Your task to perform on an android device: turn smart compose on in the gmail app Image 0: 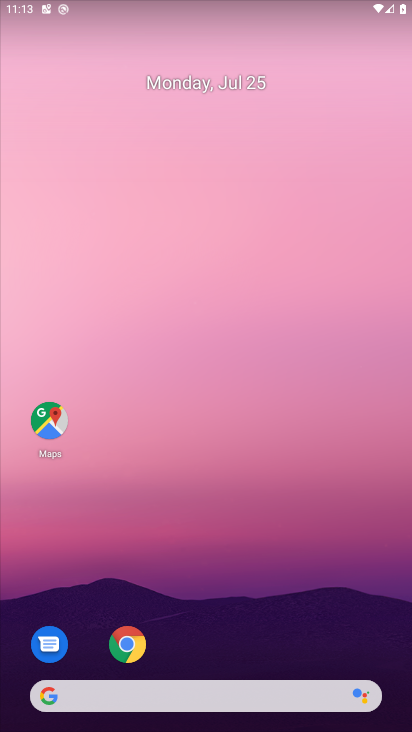
Step 0: press home button
Your task to perform on an android device: turn smart compose on in the gmail app Image 1: 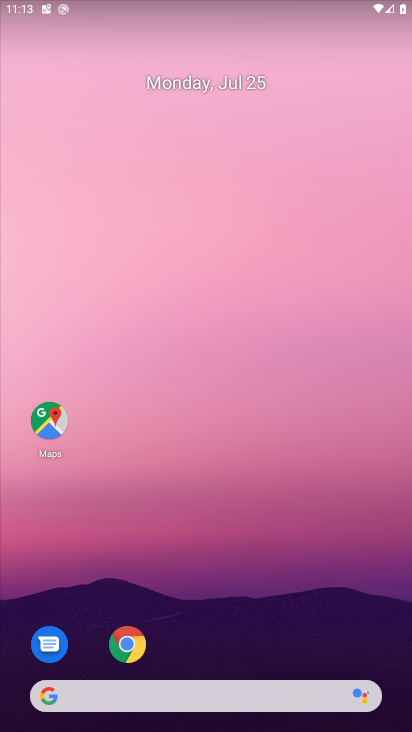
Step 1: drag from (145, 655) to (183, 447)
Your task to perform on an android device: turn smart compose on in the gmail app Image 2: 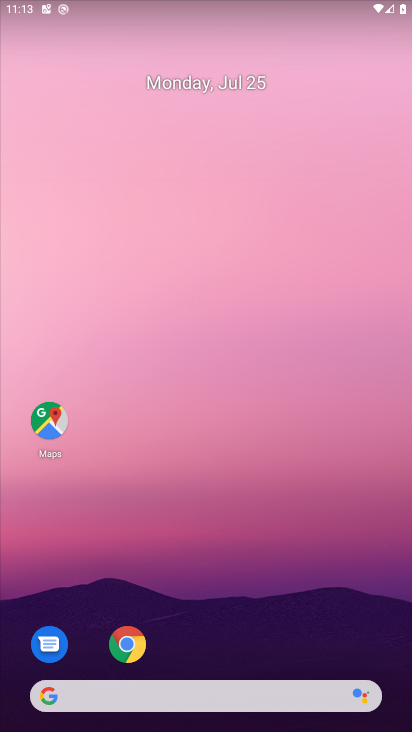
Step 2: drag from (169, 634) to (99, 158)
Your task to perform on an android device: turn smart compose on in the gmail app Image 3: 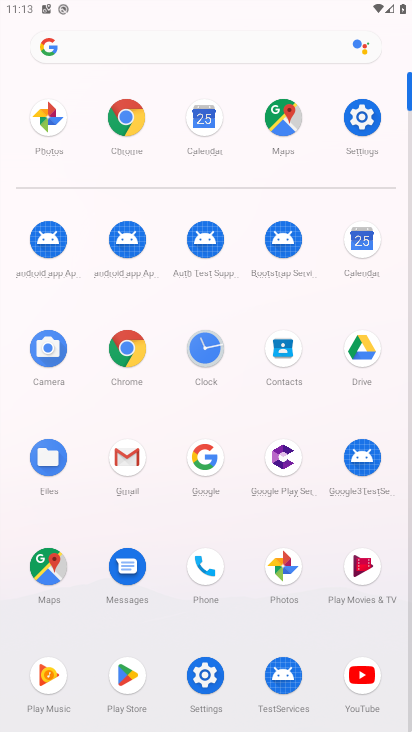
Step 3: click (141, 456)
Your task to perform on an android device: turn smart compose on in the gmail app Image 4: 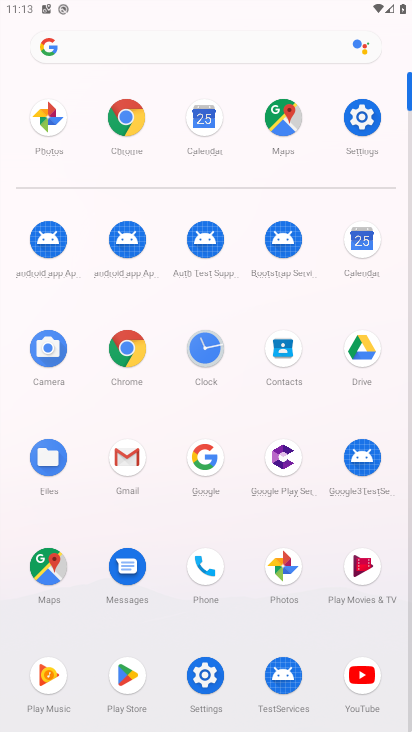
Step 4: click (131, 435)
Your task to perform on an android device: turn smart compose on in the gmail app Image 5: 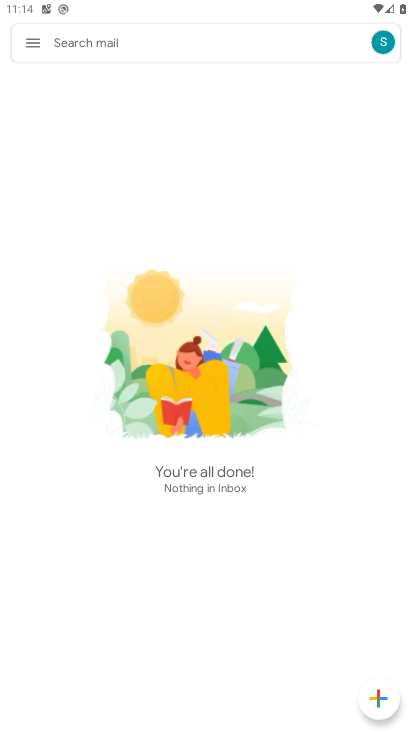
Step 5: click (37, 43)
Your task to perform on an android device: turn smart compose on in the gmail app Image 6: 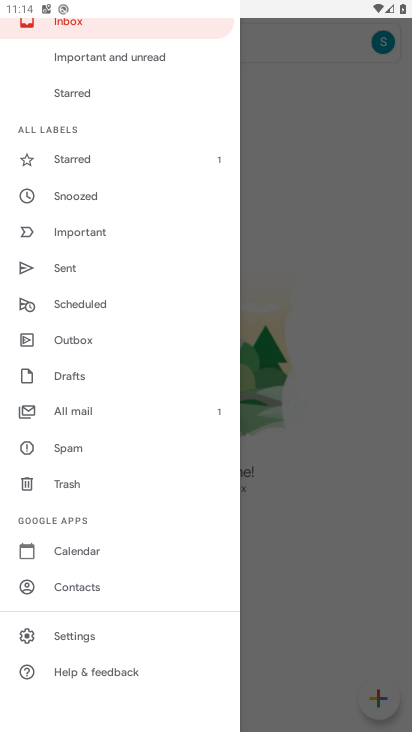
Step 6: click (98, 625)
Your task to perform on an android device: turn smart compose on in the gmail app Image 7: 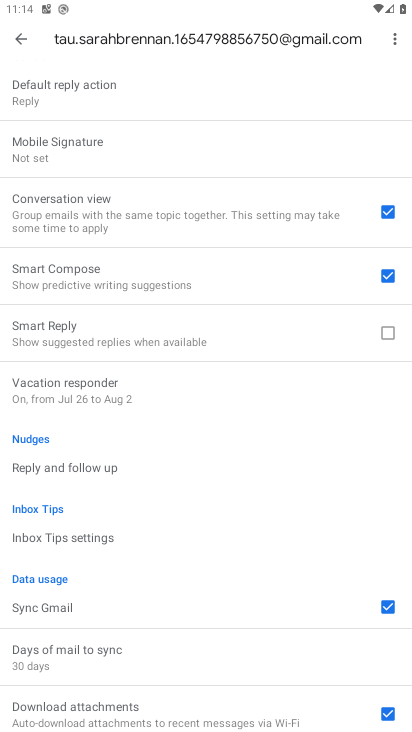
Step 7: task complete